Your task to perform on an android device: open a bookmark in the chrome app Image 0: 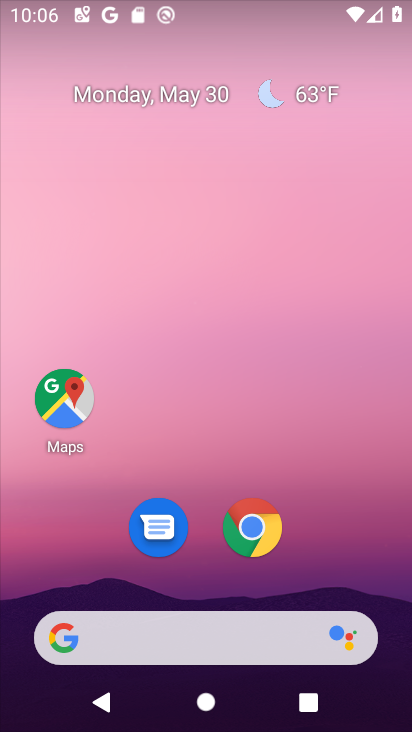
Step 0: drag from (288, 564) to (277, 208)
Your task to perform on an android device: open a bookmark in the chrome app Image 1: 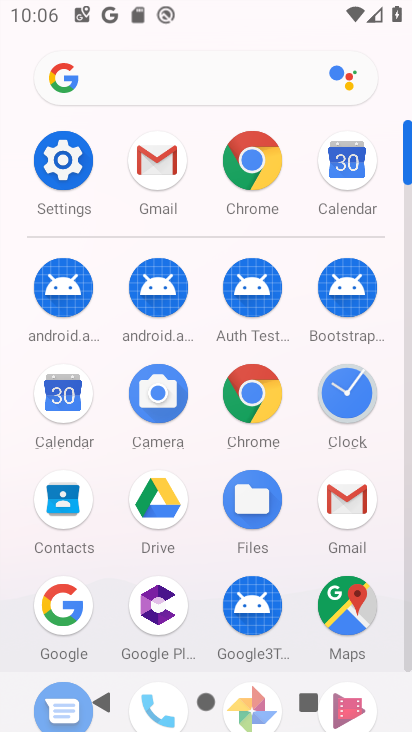
Step 1: click (254, 389)
Your task to perform on an android device: open a bookmark in the chrome app Image 2: 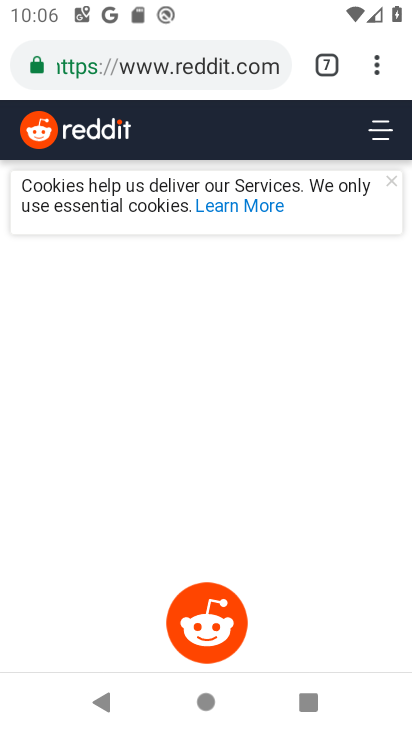
Step 2: click (378, 61)
Your task to perform on an android device: open a bookmark in the chrome app Image 3: 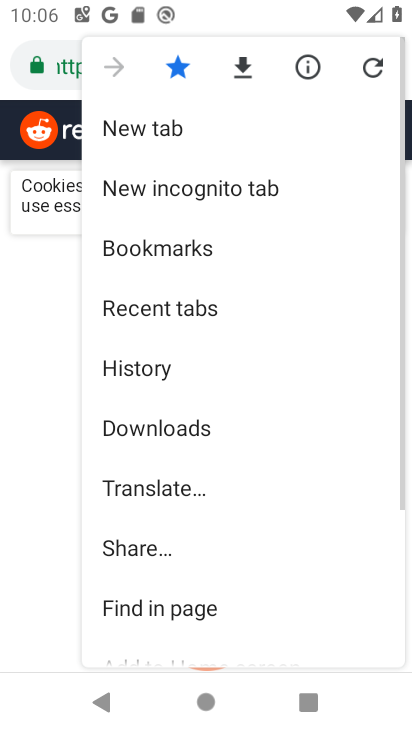
Step 3: click (163, 242)
Your task to perform on an android device: open a bookmark in the chrome app Image 4: 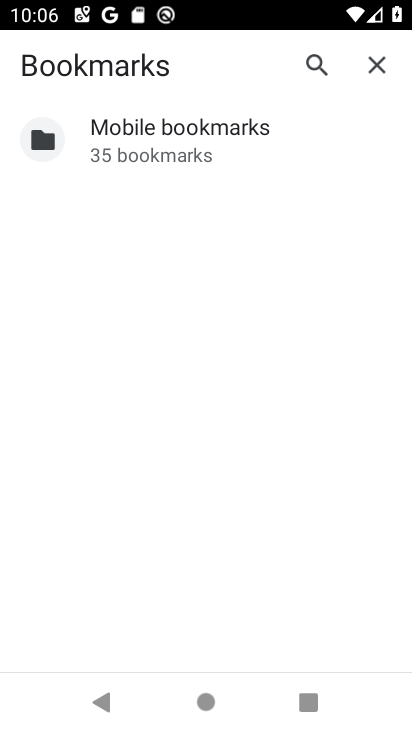
Step 4: click (187, 129)
Your task to perform on an android device: open a bookmark in the chrome app Image 5: 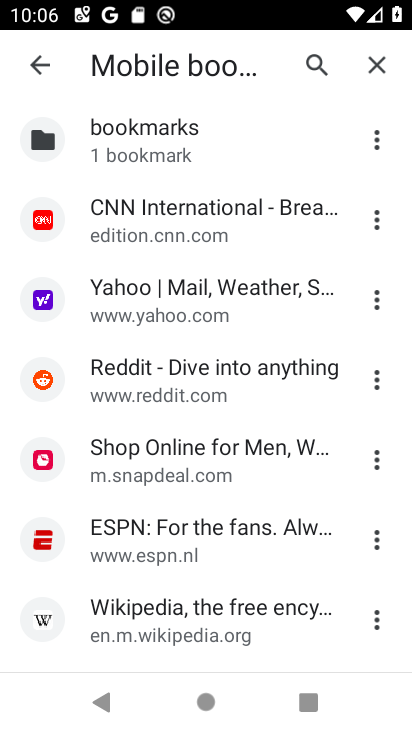
Step 5: task complete